Your task to perform on an android device: Open battery settings Image 0: 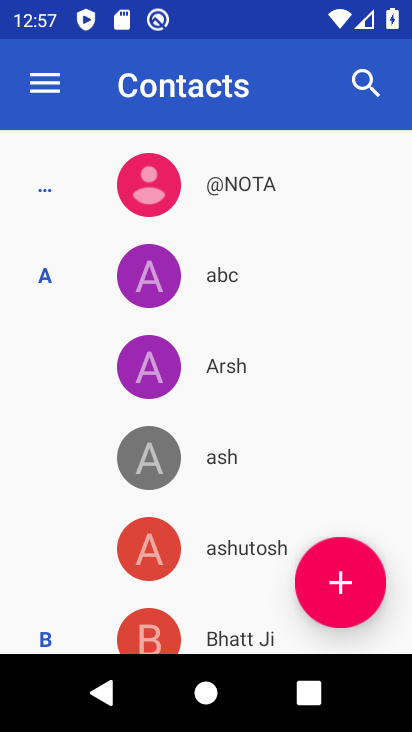
Step 0: press home button
Your task to perform on an android device: Open battery settings Image 1: 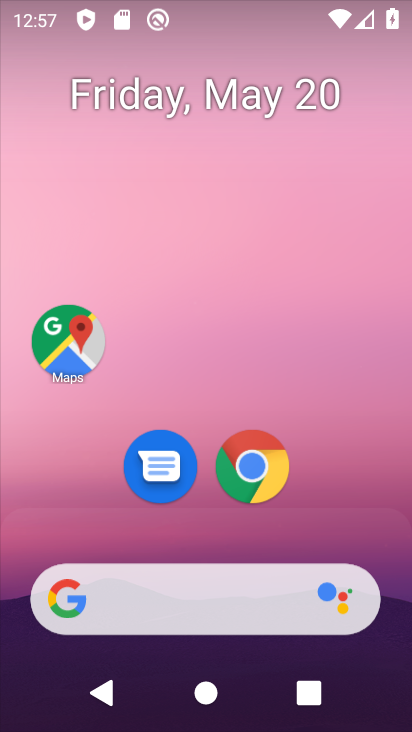
Step 1: drag from (212, 260) to (212, 223)
Your task to perform on an android device: Open battery settings Image 2: 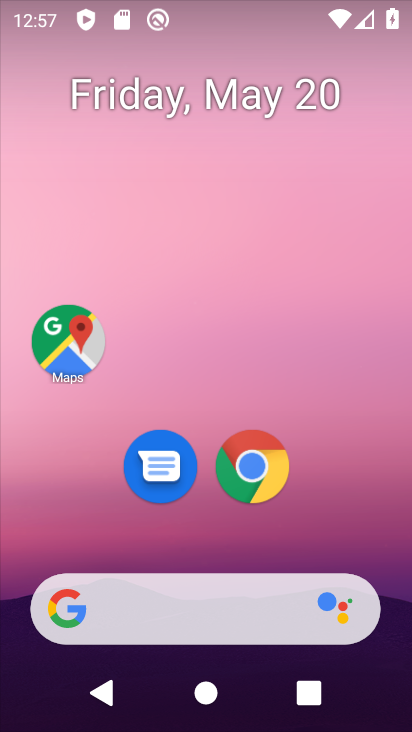
Step 2: drag from (211, 549) to (209, 173)
Your task to perform on an android device: Open battery settings Image 3: 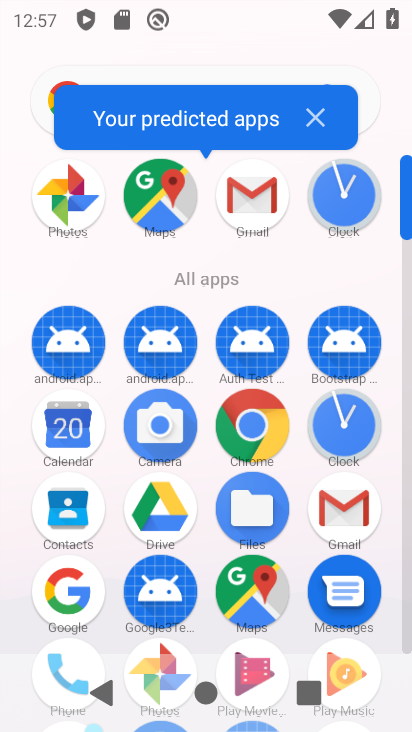
Step 3: drag from (217, 532) to (209, 269)
Your task to perform on an android device: Open battery settings Image 4: 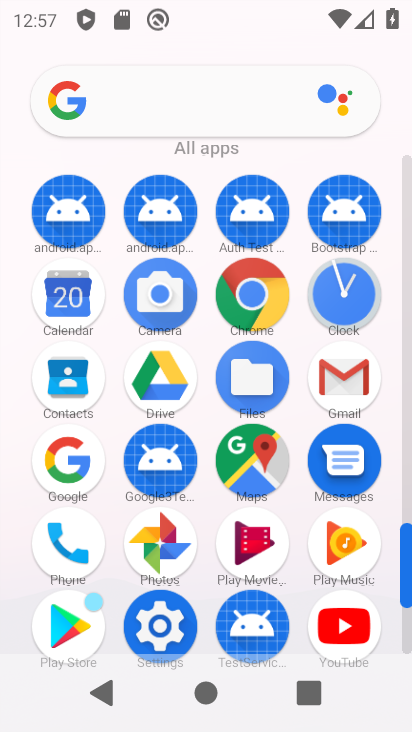
Step 4: click (174, 621)
Your task to perform on an android device: Open battery settings Image 5: 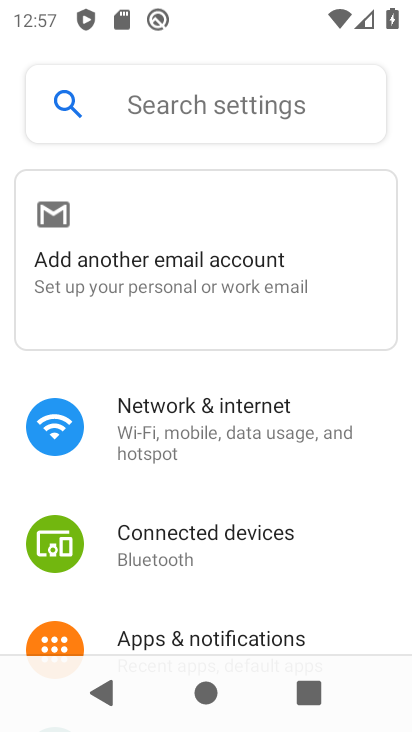
Step 5: drag from (204, 528) to (250, 279)
Your task to perform on an android device: Open battery settings Image 6: 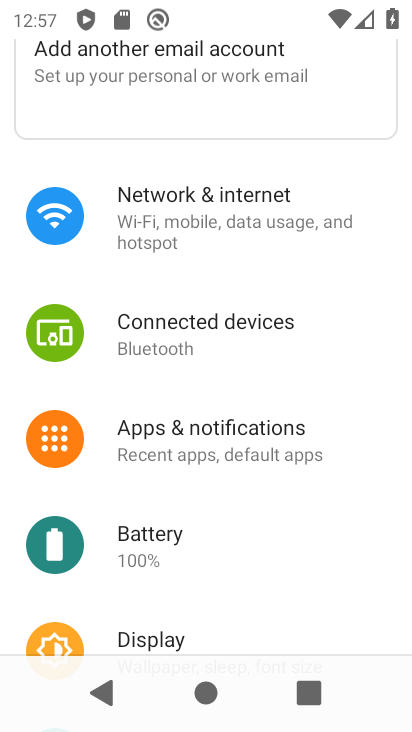
Step 6: click (233, 538)
Your task to perform on an android device: Open battery settings Image 7: 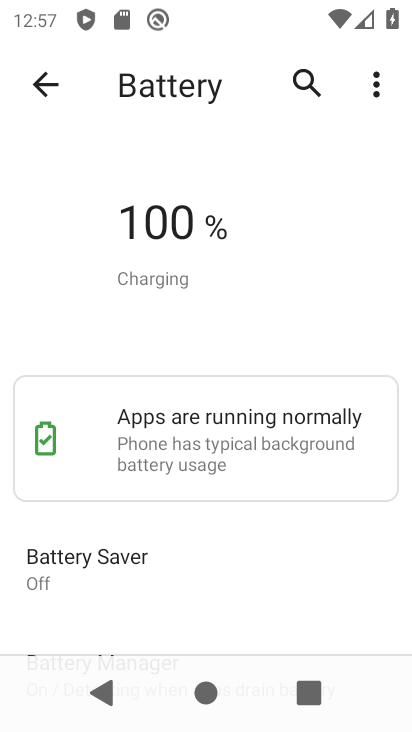
Step 7: task complete